Your task to perform on an android device: Go to Wikipedia Image 0: 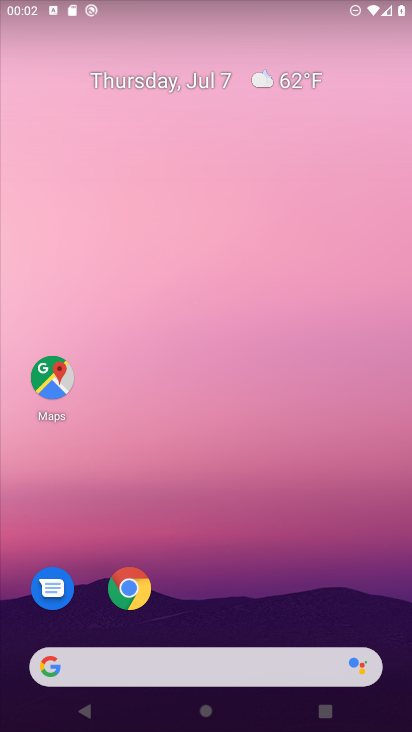
Step 0: click (128, 588)
Your task to perform on an android device: Go to Wikipedia Image 1: 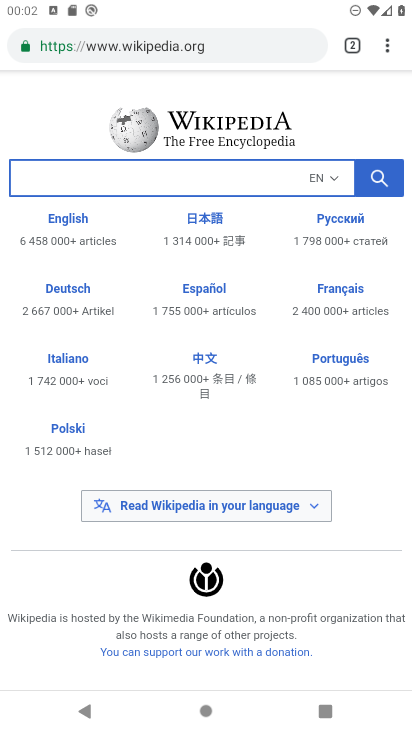
Step 1: task complete